Your task to perform on an android device: open app "Mercado Libre" Image 0: 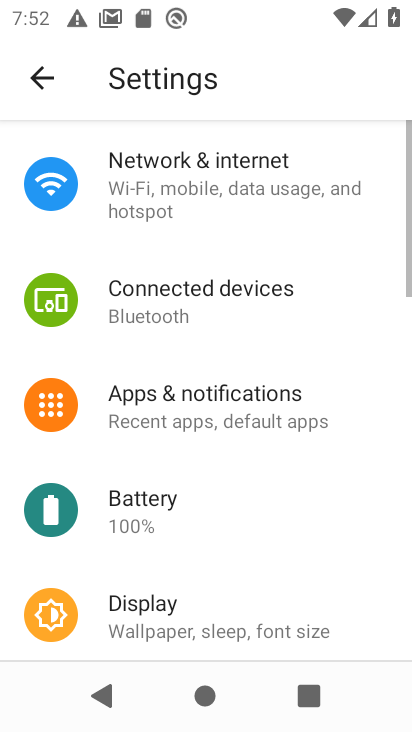
Step 0: press home button
Your task to perform on an android device: open app "Mercado Libre" Image 1: 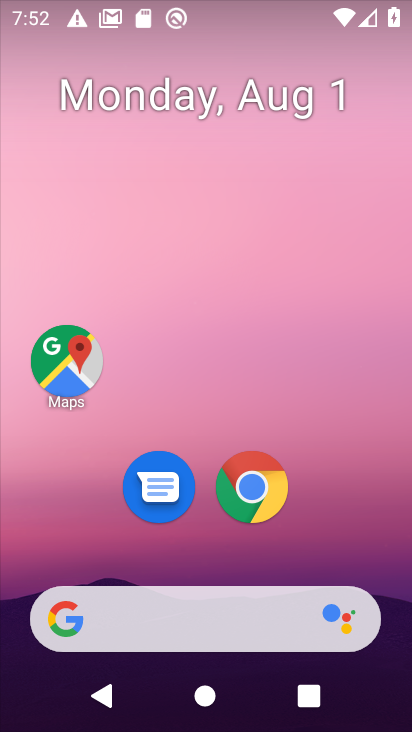
Step 1: drag from (374, 509) to (337, 63)
Your task to perform on an android device: open app "Mercado Libre" Image 2: 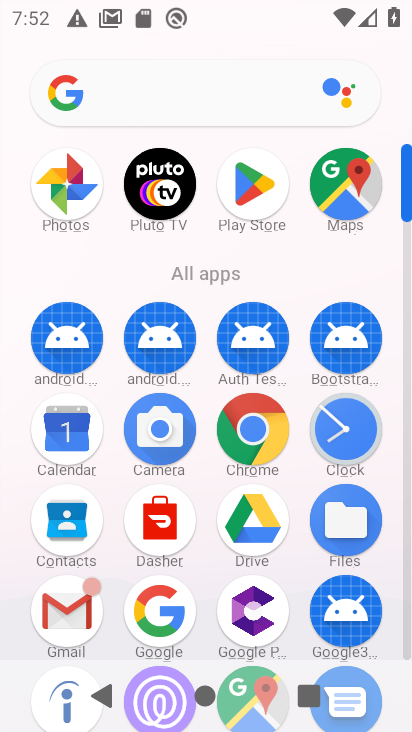
Step 2: click (260, 177)
Your task to perform on an android device: open app "Mercado Libre" Image 3: 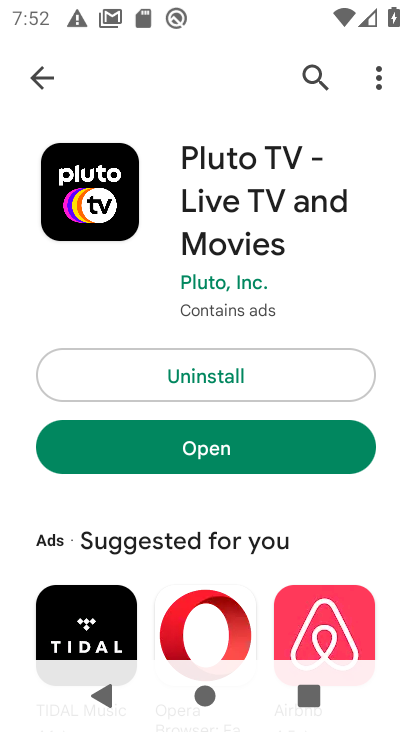
Step 3: click (304, 66)
Your task to perform on an android device: open app "Mercado Libre" Image 4: 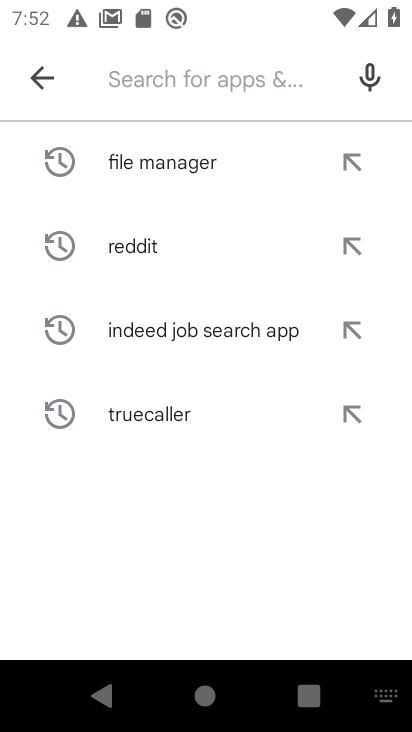
Step 4: type "mercado libre"
Your task to perform on an android device: open app "Mercado Libre" Image 5: 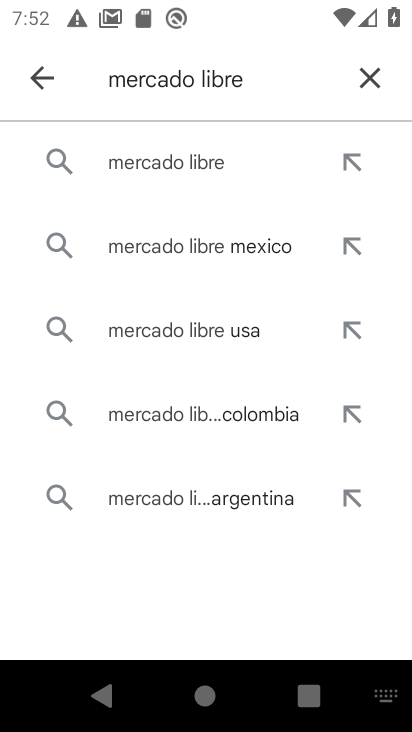
Step 5: click (183, 159)
Your task to perform on an android device: open app "Mercado Libre" Image 6: 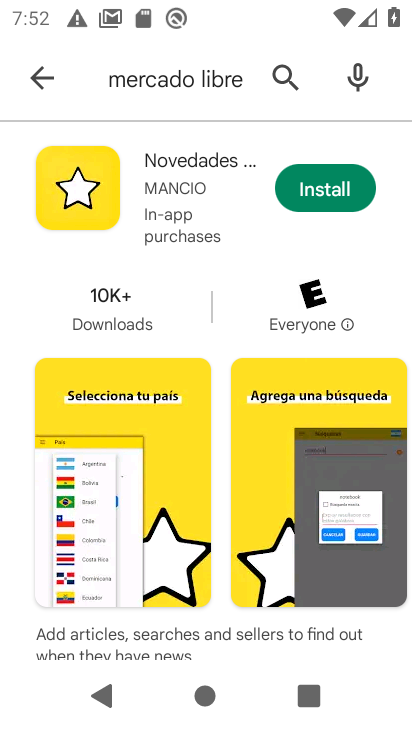
Step 6: task complete